Your task to perform on an android device: Empty the shopping cart on costco. Search for "dell xps" on costco, select the first entry, add it to the cart, then select checkout. Image 0: 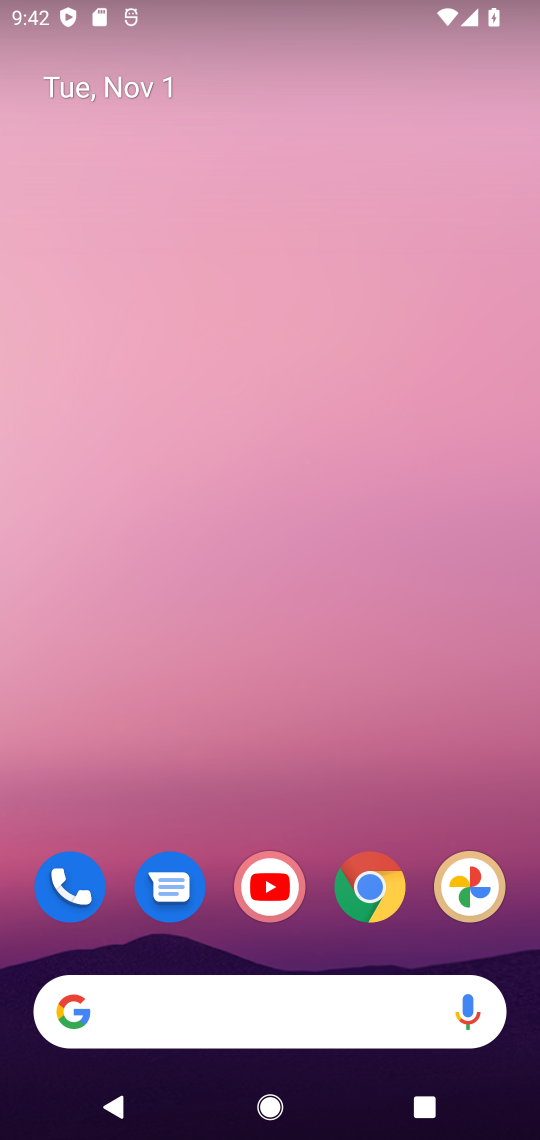
Step 0: click (367, 881)
Your task to perform on an android device: Empty the shopping cart on costco. Search for "dell xps" on costco, select the first entry, add it to the cart, then select checkout. Image 1: 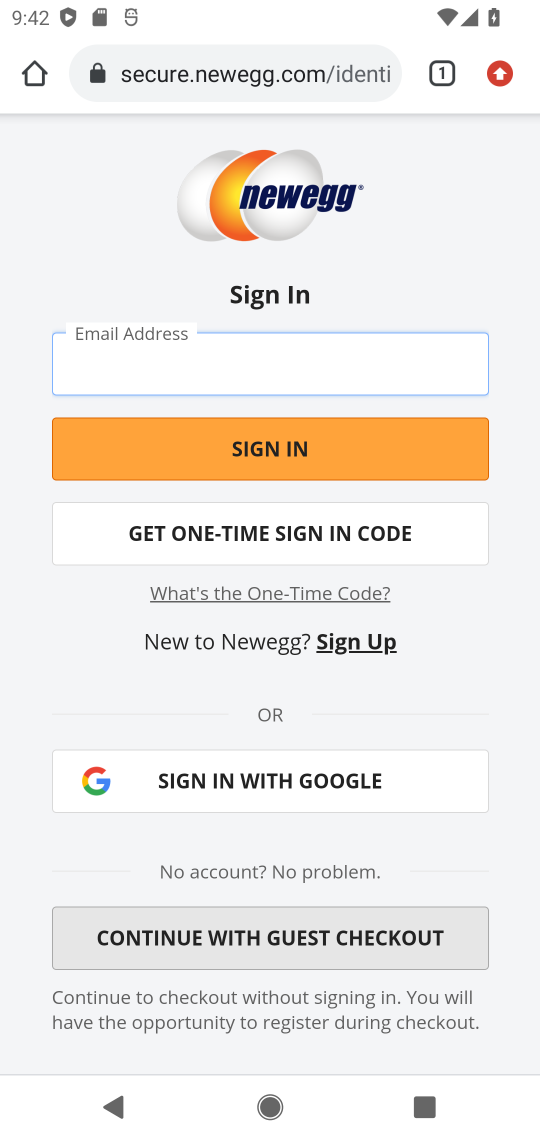
Step 1: click (316, 72)
Your task to perform on an android device: Empty the shopping cart on costco. Search for "dell xps" on costco, select the first entry, add it to the cart, then select checkout. Image 2: 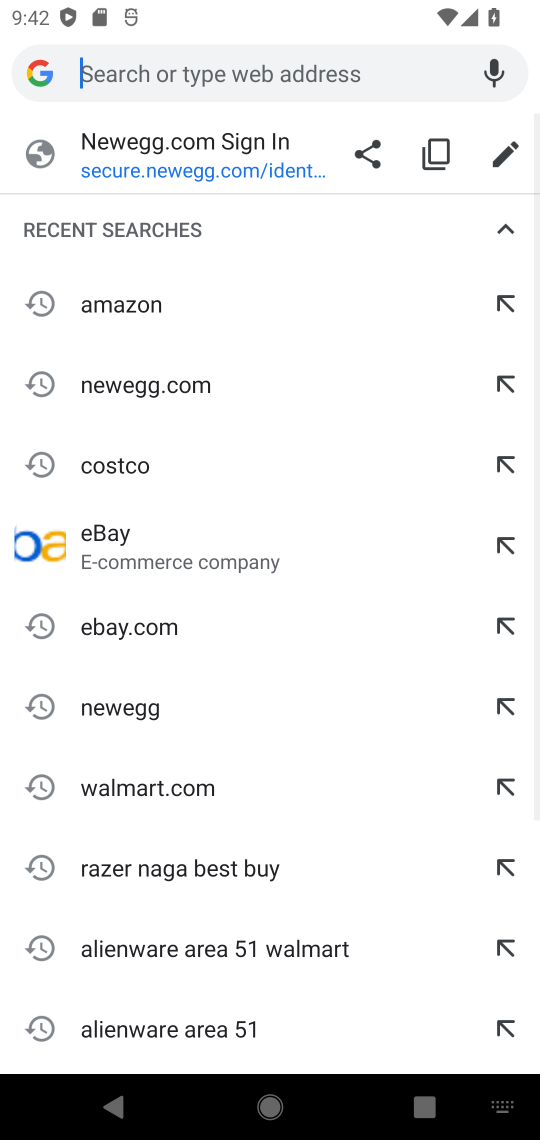
Step 2: click (136, 467)
Your task to perform on an android device: Empty the shopping cart on costco. Search for "dell xps" on costco, select the first entry, add it to the cart, then select checkout. Image 3: 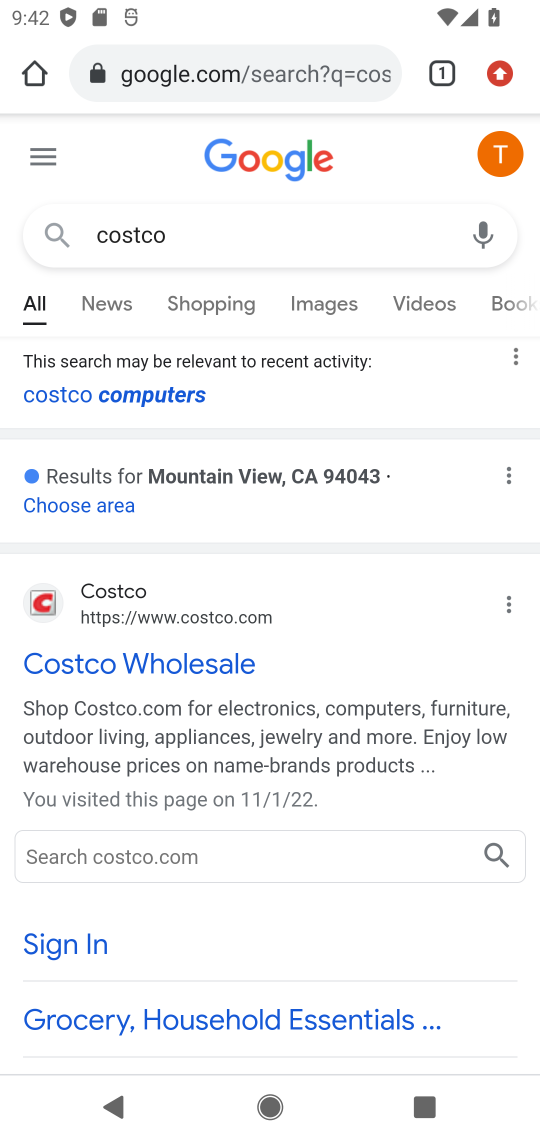
Step 3: click (125, 614)
Your task to perform on an android device: Empty the shopping cart on costco. Search for "dell xps" on costco, select the first entry, add it to the cart, then select checkout. Image 4: 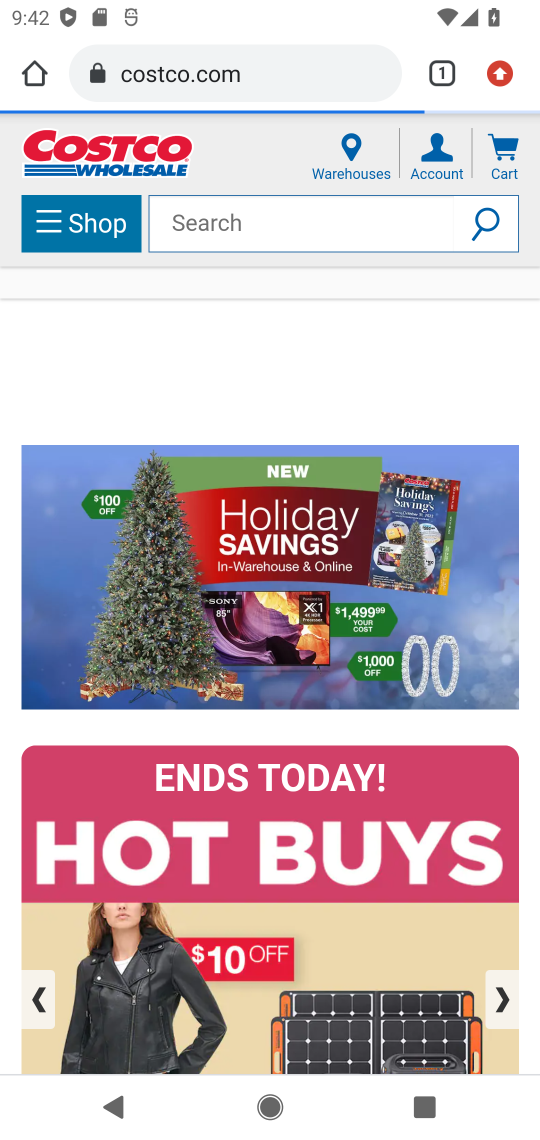
Step 4: click (500, 168)
Your task to perform on an android device: Empty the shopping cart on costco. Search for "dell xps" on costco, select the first entry, add it to the cart, then select checkout. Image 5: 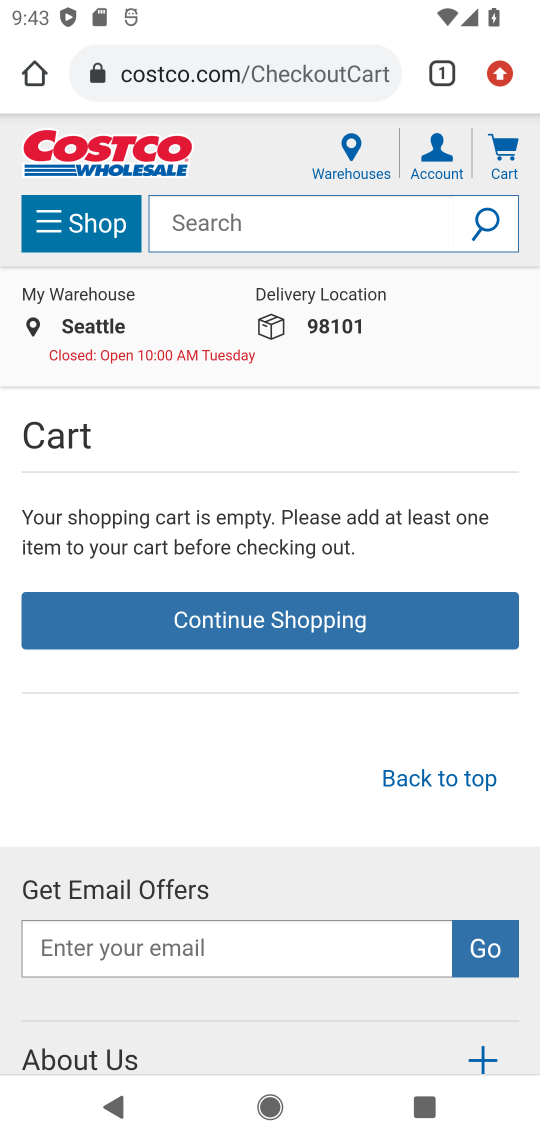
Step 5: click (369, 222)
Your task to perform on an android device: Empty the shopping cart on costco. Search for "dell xps" on costco, select the first entry, add it to the cart, then select checkout. Image 6: 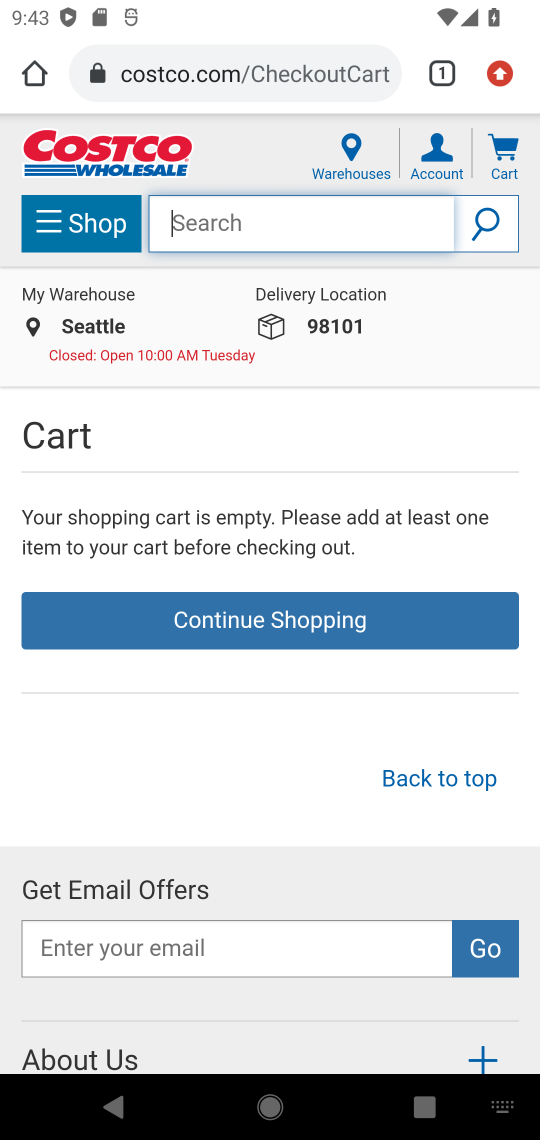
Step 6: type "dell xps"
Your task to perform on an android device: Empty the shopping cart on costco. Search for "dell xps" on costco, select the first entry, add it to the cart, then select checkout. Image 7: 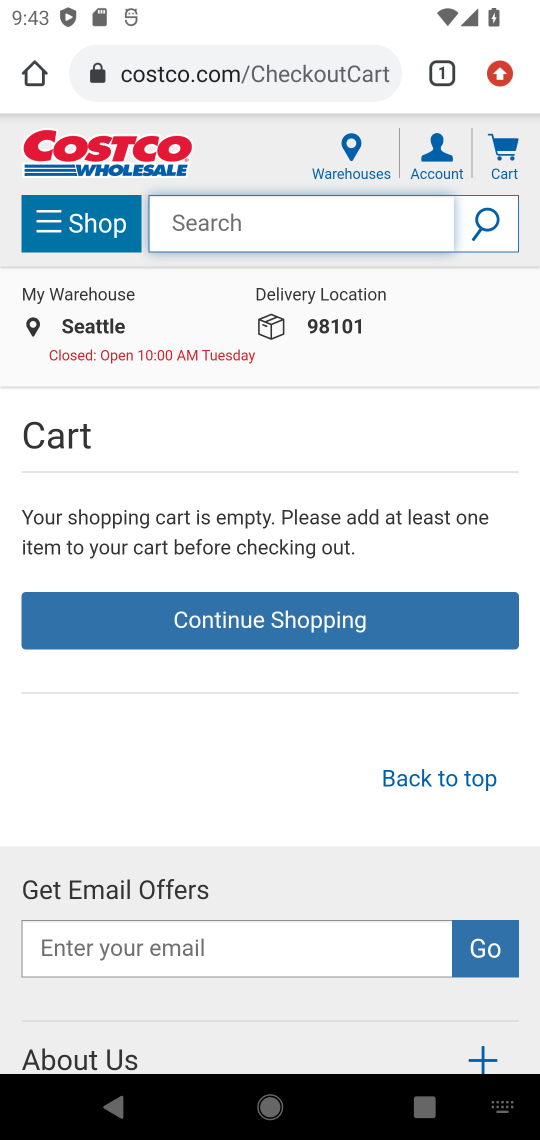
Step 7: press enter
Your task to perform on an android device: Empty the shopping cart on costco. Search for "dell xps" on costco, select the first entry, add it to the cart, then select checkout. Image 8: 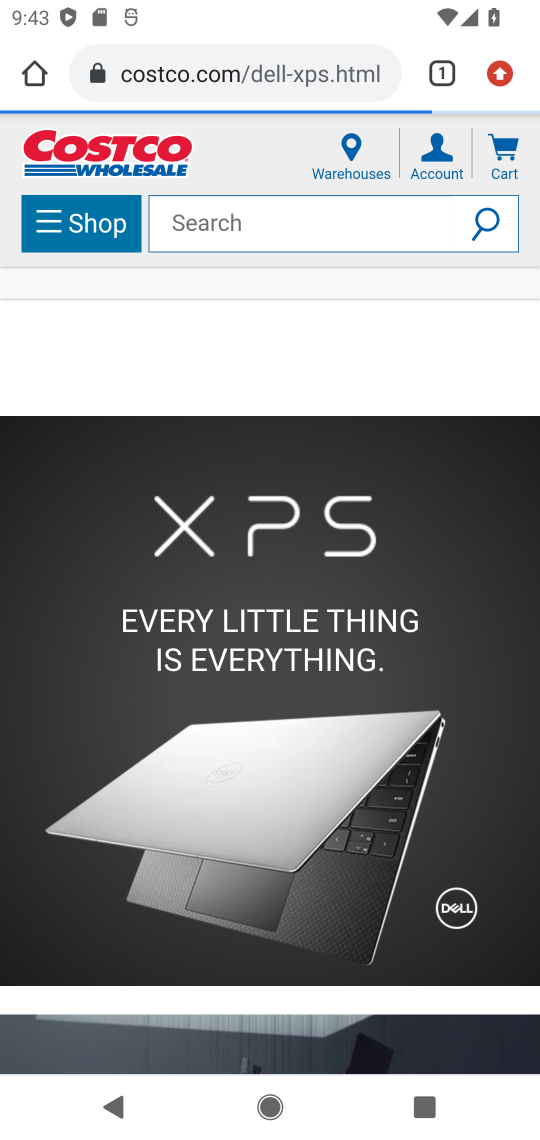
Step 8: click (290, 237)
Your task to perform on an android device: Empty the shopping cart on costco. Search for "dell xps" on costco, select the first entry, add it to the cart, then select checkout. Image 9: 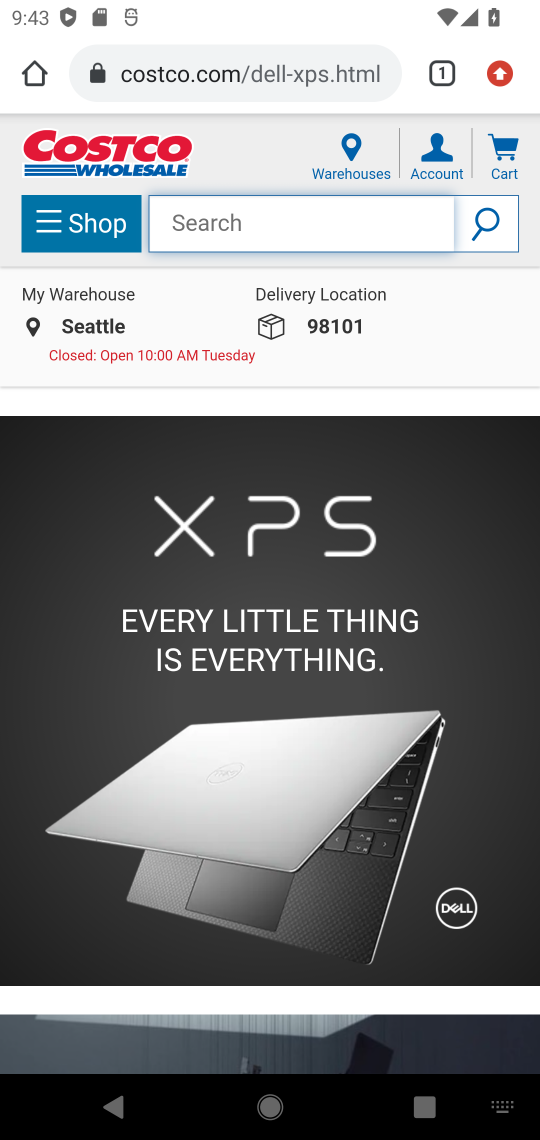
Step 9: type "dell xps"
Your task to perform on an android device: Empty the shopping cart on costco. Search for "dell xps" on costco, select the first entry, add it to the cart, then select checkout. Image 10: 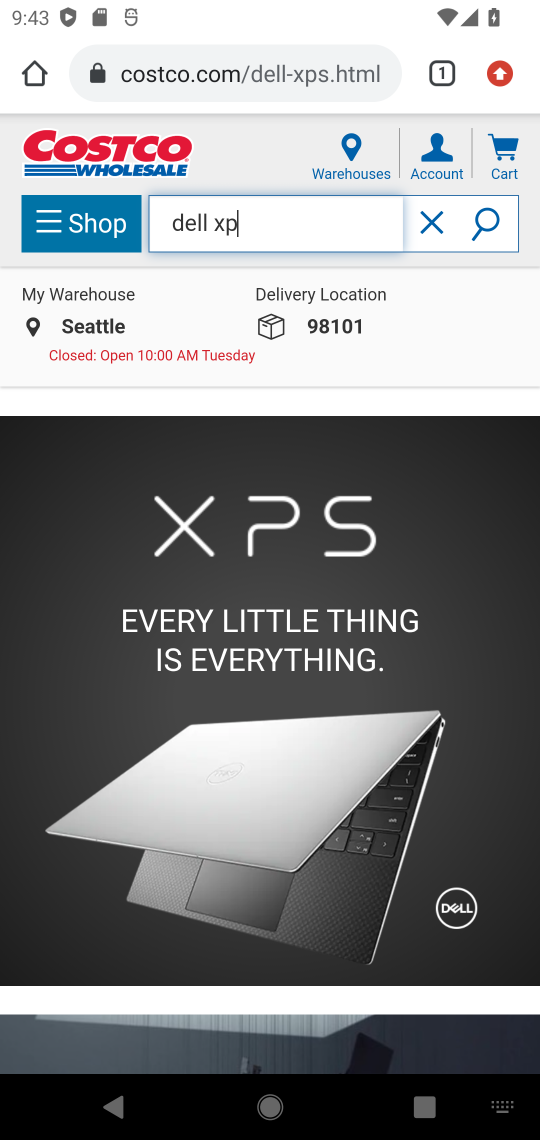
Step 10: press enter
Your task to perform on an android device: Empty the shopping cart on costco. Search for "dell xps" on costco, select the first entry, add it to the cart, then select checkout. Image 11: 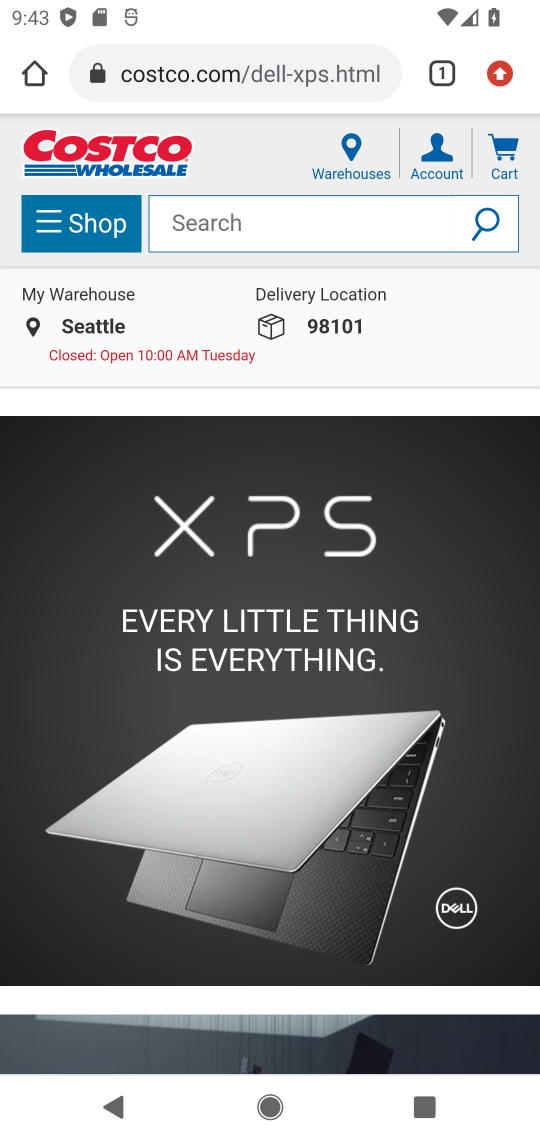
Step 11: click (269, 202)
Your task to perform on an android device: Empty the shopping cart on costco. Search for "dell xps" on costco, select the first entry, add it to the cart, then select checkout. Image 12: 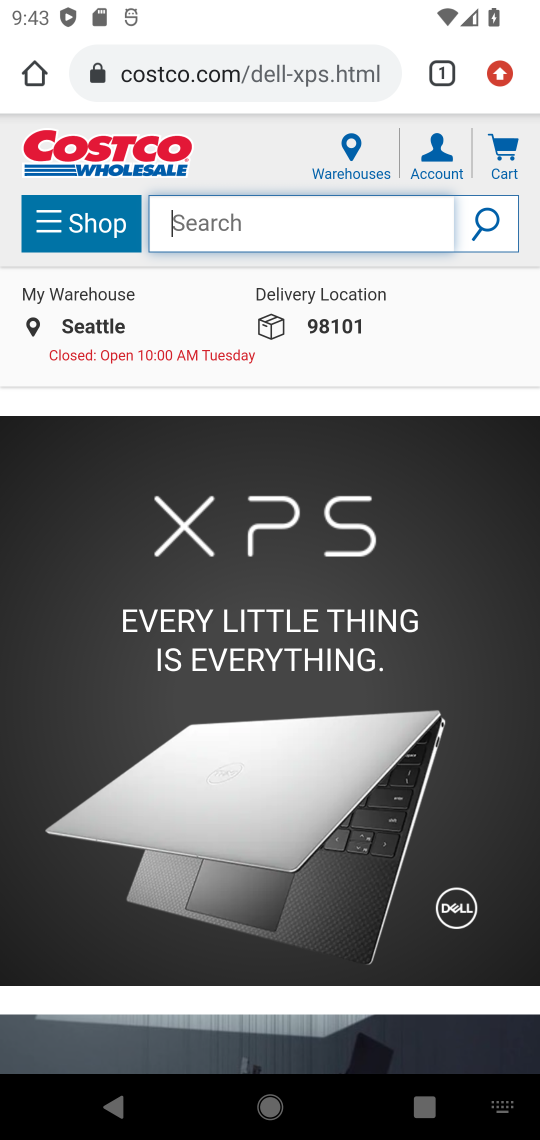
Step 12: type "dell xps"
Your task to perform on an android device: Empty the shopping cart on costco. Search for "dell xps" on costco, select the first entry, add it to the cart, then select checkout. Image 13: 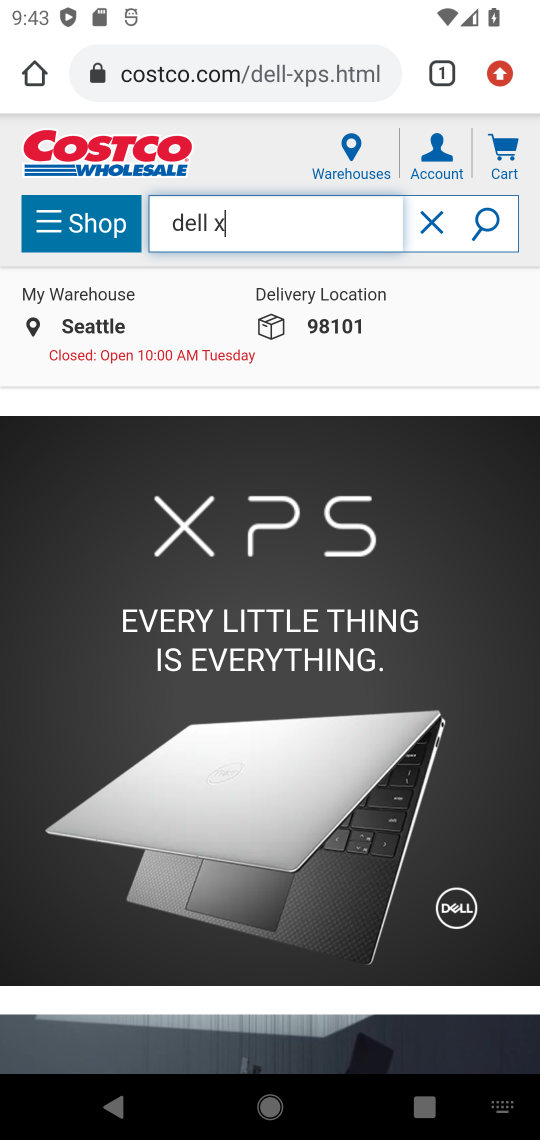
Step 13: press enter
Your task to perform on an android device: Empty the shopping cart on costco. Search for "dell xps" on costco, select the first entry, add it to the cart, then select checkout. Image 14: 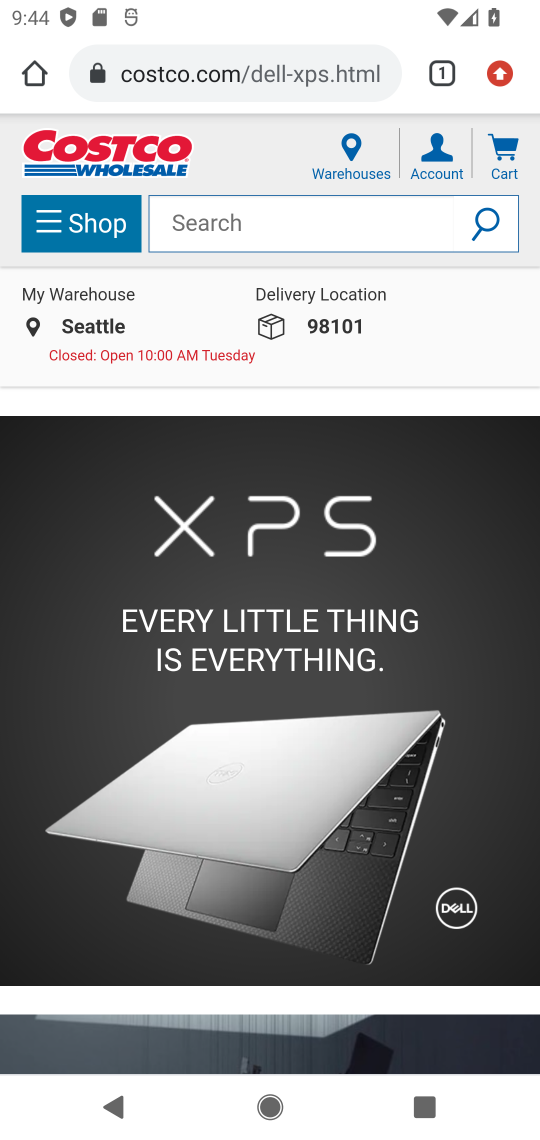
Step 14: drag from (375, 702) to (414, 67)
Your task to perform on an android device: Empty the shopping cart on costco. Search for "dell xps" on costco, select the first entry, add it to the cart, then select checkout. Image 15: 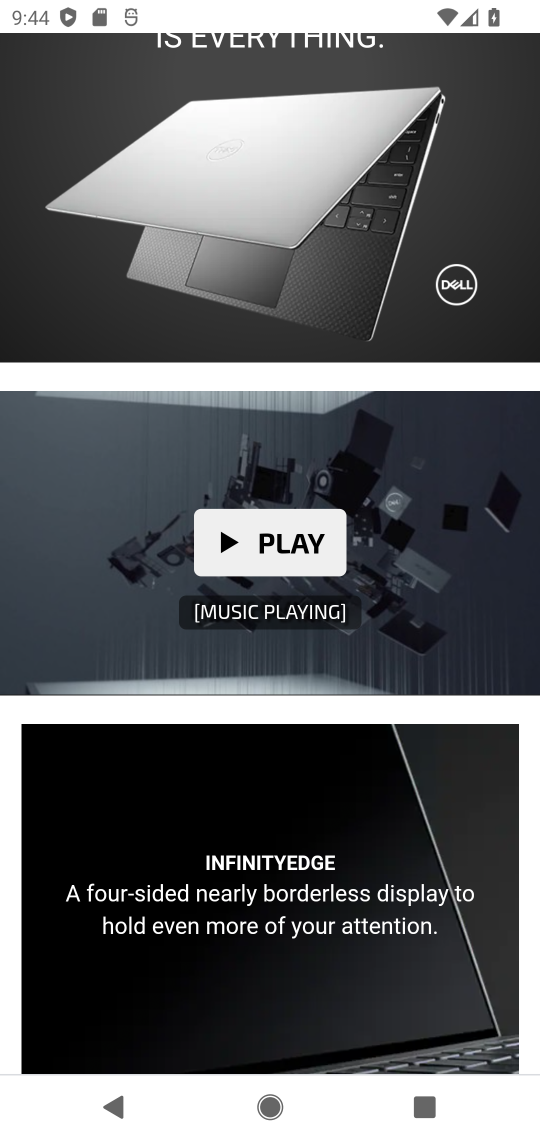
Step 15: drag from (395, 864) to (475, 108)
Your task to perform on an android device: Empty the shopping cart on costco. Search for "dell xps" on costco, select the first entry, add it to the cart, then select checkout. Image 16: 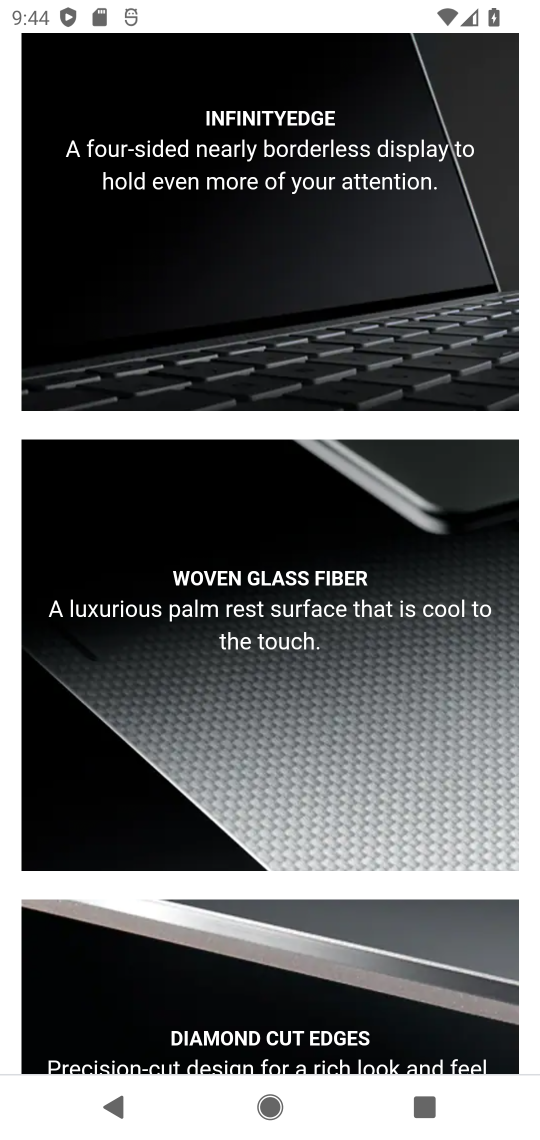
Step 16: drag from (373, 769) to (464, 43)
Your task to perform on an android device: Empty the shopping cart on costco. Search for "dell xps" on costco, select the first entry, add it to the cart, then select checkout. Image 17: 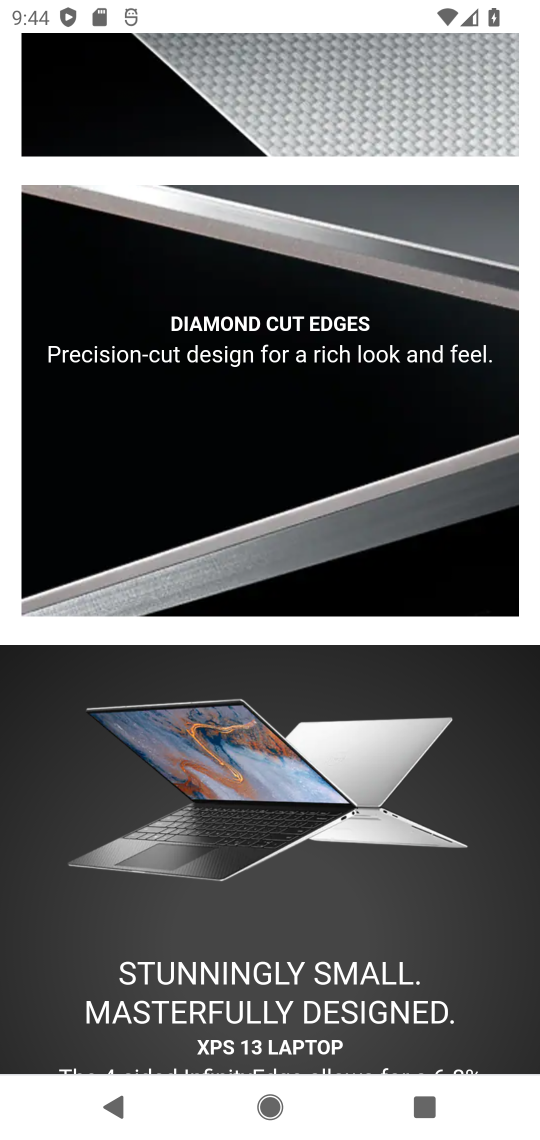
Step 17: drag from (339, 808) to (458, 99)
Your task to perform on an android device: Empty the shopping cart on costco. Search for "dell xps" on costco, select the first entry, add it to the cart, then select checkout. Image 18: 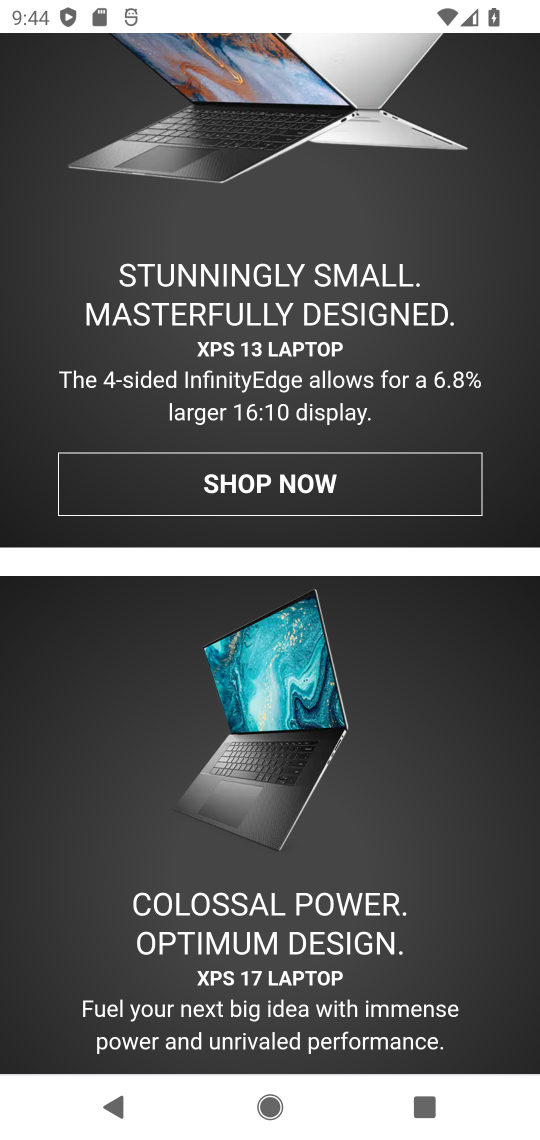
Step 18: drag from (369, 786) to (450, 146)
Your task to perform on an android device: Empty the shopping cart on costco. Search for "dell xps" on costco, select the first entry, add it to the cart, then select checkout. Image 19: 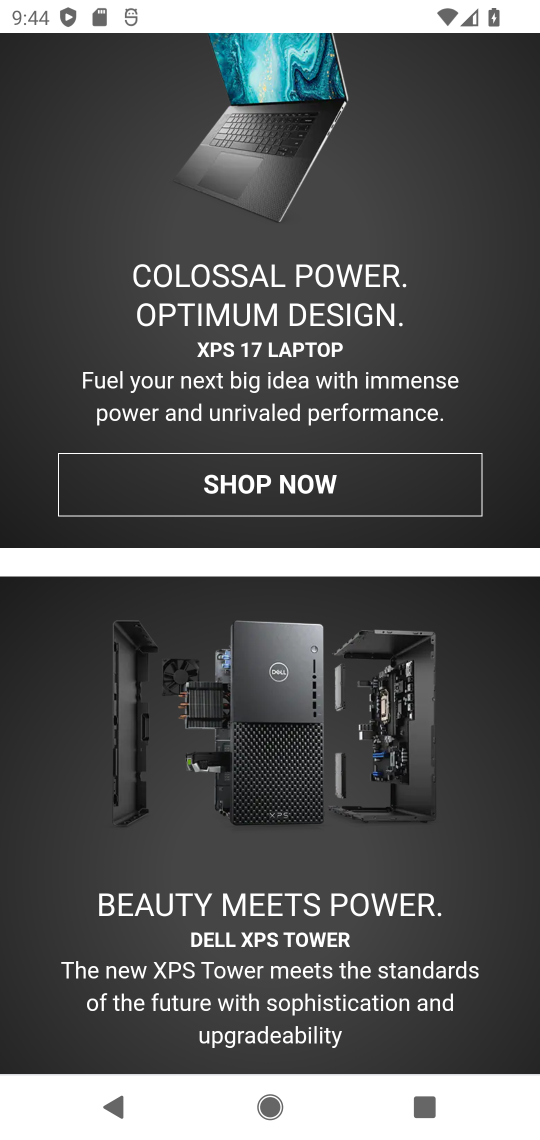
Step 19: click (334, 489)
Your task to perform on an android device: Empty the shopping cart on costco. Search for "dell xps" on costco, select the first entry, add it to the cart, then select checkout. Image 20: 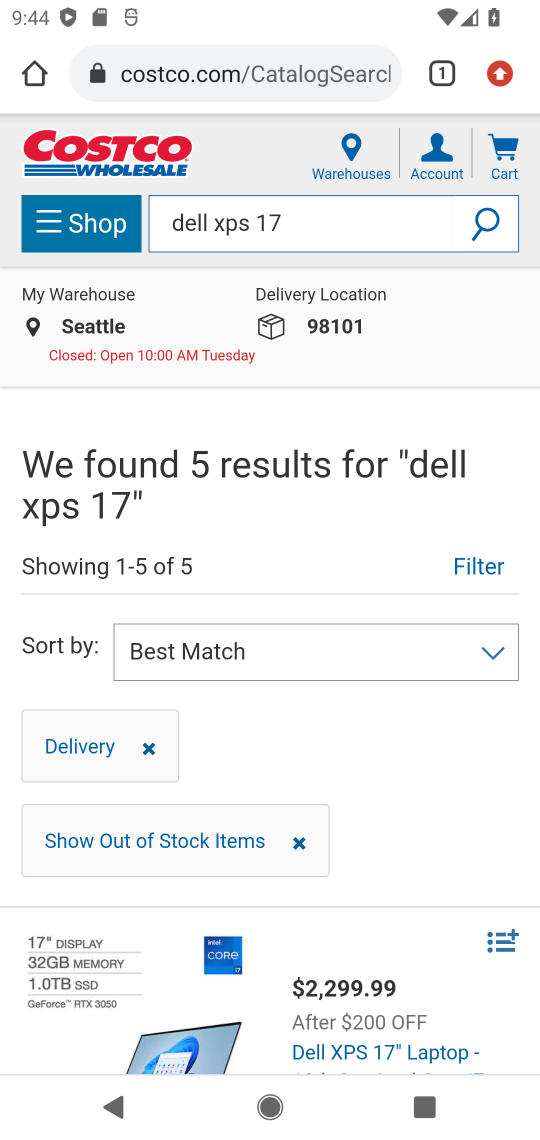
Step 20: drag from (395, 792) to (400, 523)
Your task to perform on an android device: Empty the shopping cart on costco. Search for "dell xps" on costco, select the first entry, add it to the cart, then select checkout. Image 21: 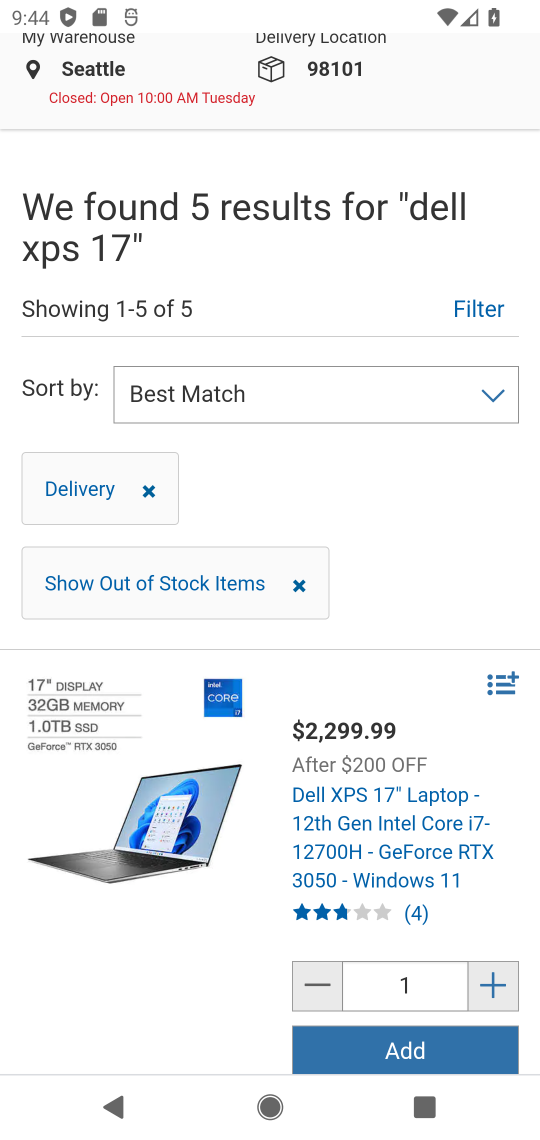
Step 21: click (161, 824)
Your task to perform on an android device: Empty the shopping cart on costco. Search for "dell xps" on costco, select the first entry, add it to the cart, then select checkout. Image 22: 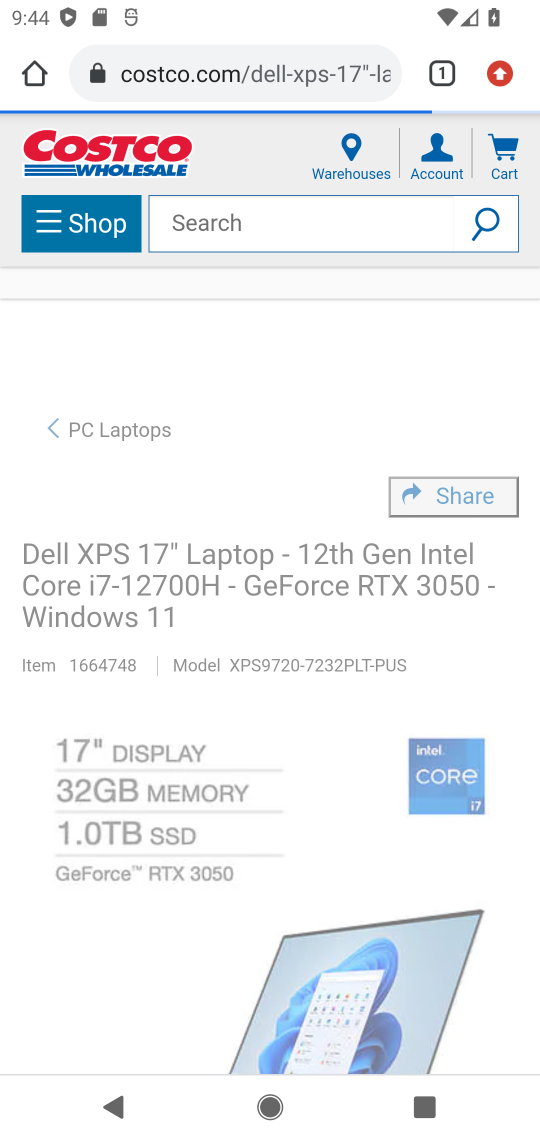
Step 22: drag from (346, 827) to (393, 387)
Your task to perform on an android device: Empty the shopping cart on costco. Search for "dell xps" on costco, select the first entry, add it to the cart, then select checkout. Image 23: 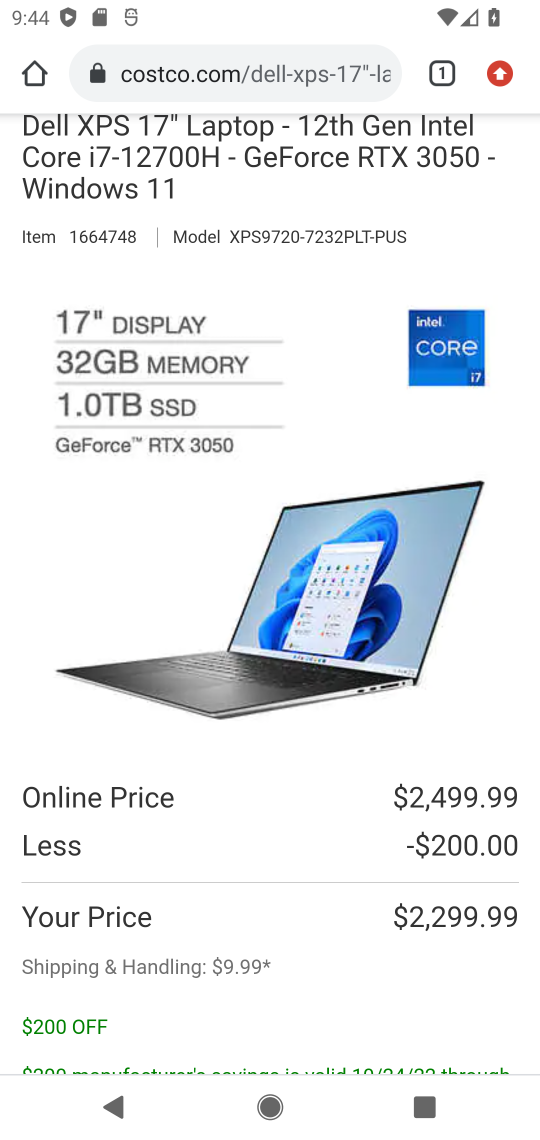
Step 23: drag from (376, 819) to (384, 410)
Your task to perform on an android device: Empty the shopping cart on costco. Search for "dell xps" on costco, select the first entry, add it to the cart, then select checkout. Image 24: 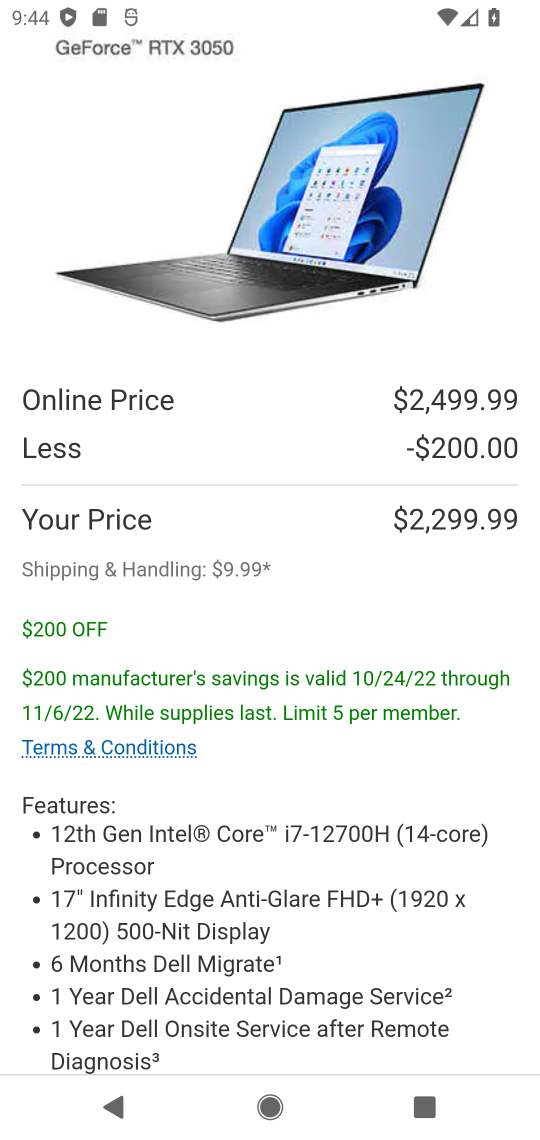
Step 24: drag from (317, 913) to (319, 408)
Your task to perform on an android device: Empty the shopping cart on costco. Search for "dell xps" on costco, select the first entry, add it to the cart, then select checkout. Image 25: 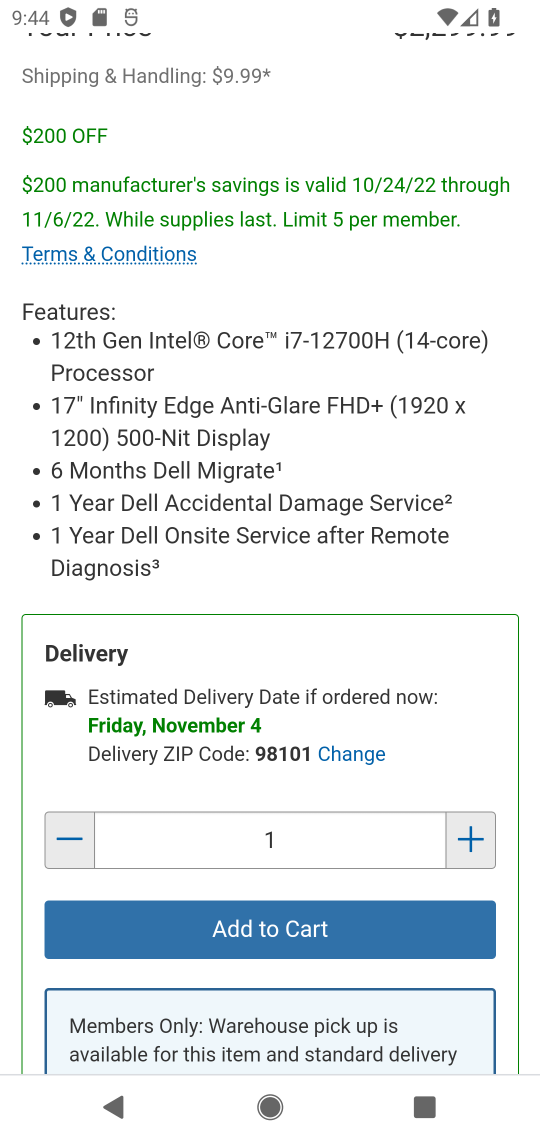
Step 25: click (323, 925)
Your task to perform on an android device: Empty the shopping cart on costco. Search for "dell xps" on costco, select the first entry, add it to the cart, then select checkout. Image 26: 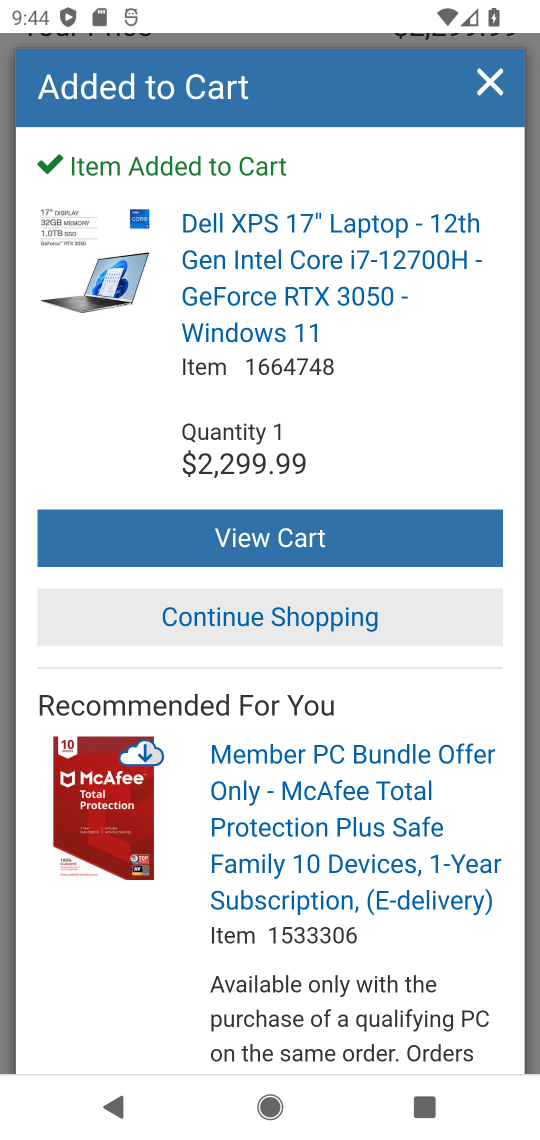
Step 26: click (486, 70)
Your task to perform on an android device: Empty the shopping cart on costco. Search for "dell xps" on costco, select the first entry, add it to the cart, then select checkout. Image 27: 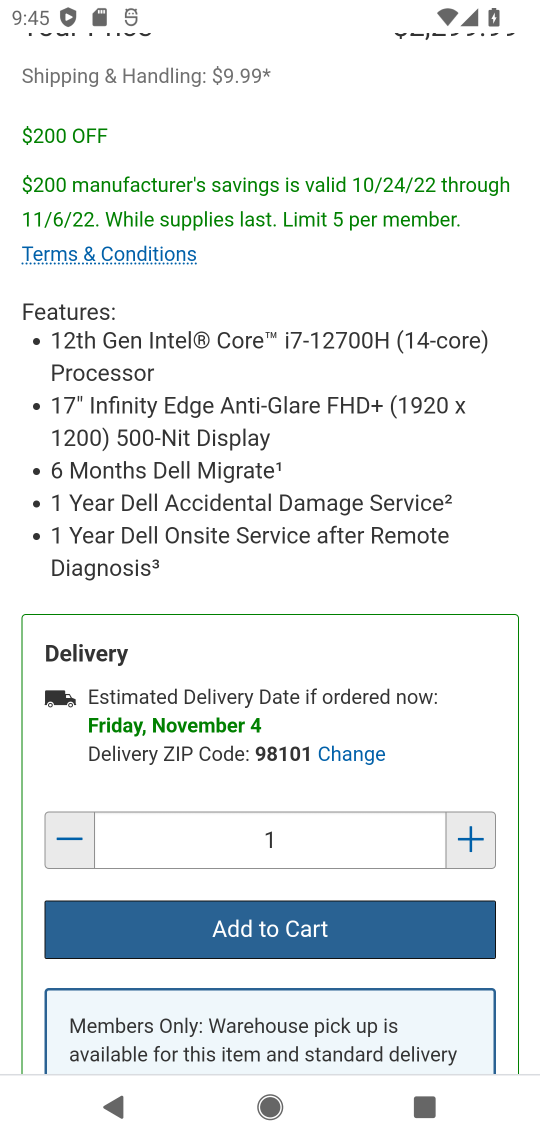
Step 27: drag from (463, 123) to (489, 589)
Your task to perform on an android device: Empty the shopping cart on costco. Search for "dell xps" on costco, select the first entry, add it to the cart, then select checkout. Image 28: 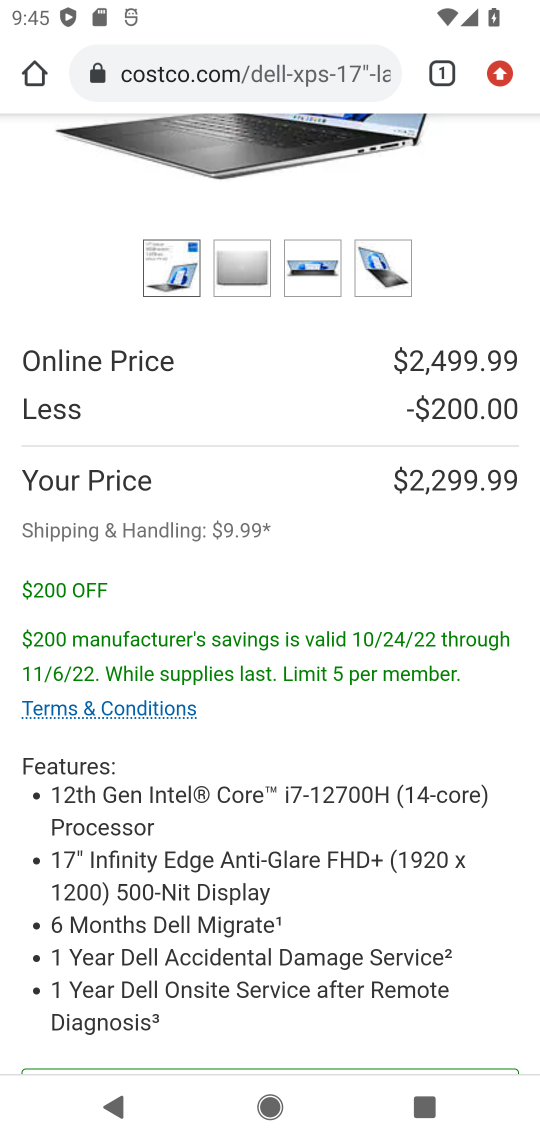
Step 28: drag from (418, 182) to (447, 811)
Your task to perform on an android device: Empty the shopping cart on costco. Search for "dell xps" on costco, select the first entry, add it to the cart, then select checkout. Image 29: 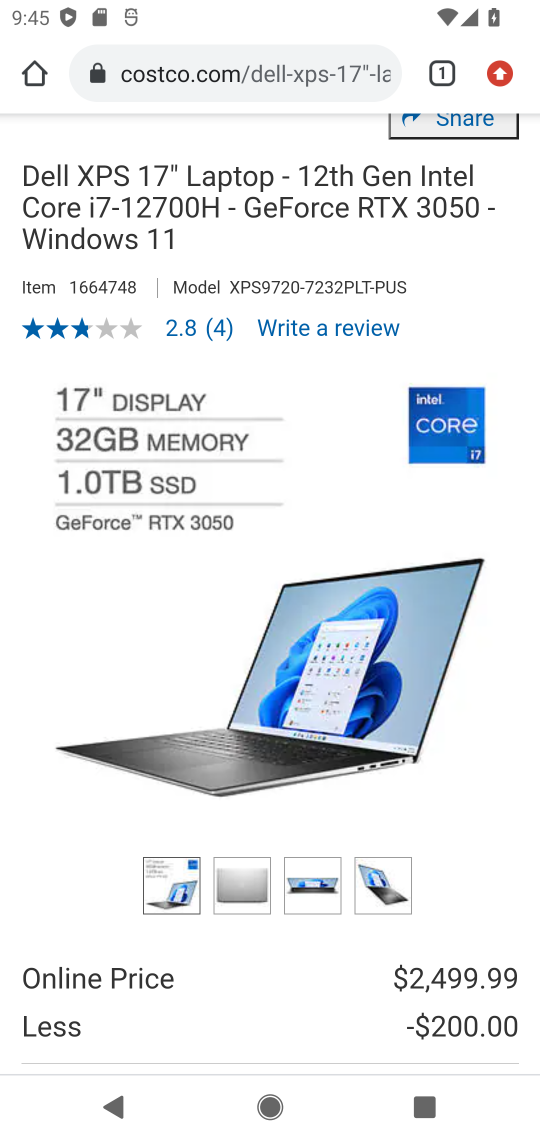
Step 29: drag from (275, 163) to (277, 637)
Your task to perform on an android device: Empty the shopping cart on costco. Search for "dell xps" on costco, select the first entry, add it to the cart, then select checkout. Image 30: 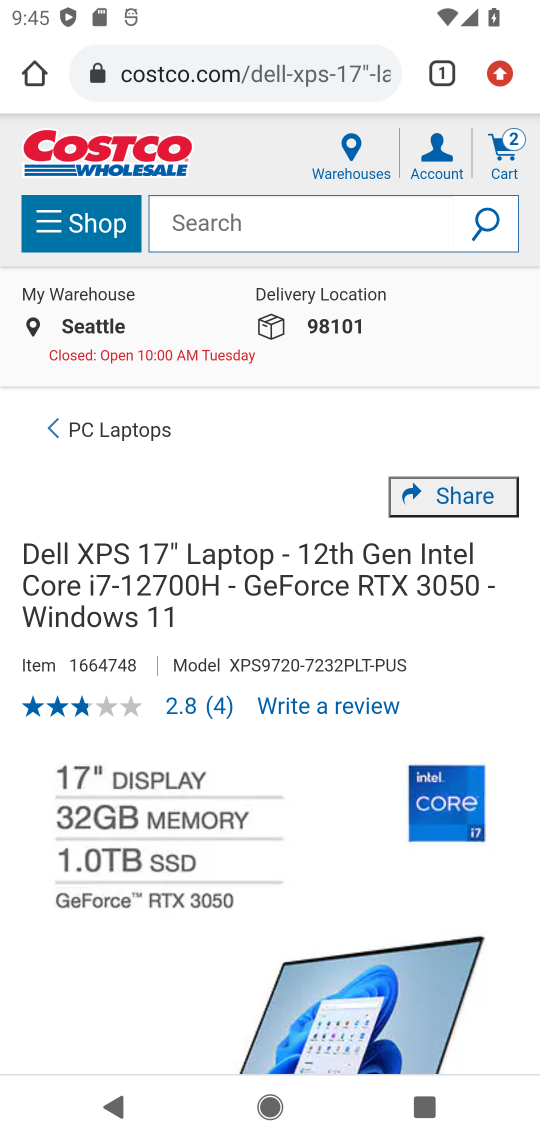
Step 30: click (496, 148)
Your task to perform on an android device: Empty the shopping cart on costco. Search for "dell xps" on costco, select the first entry, add it to the cart, then select checkout. Image 31: 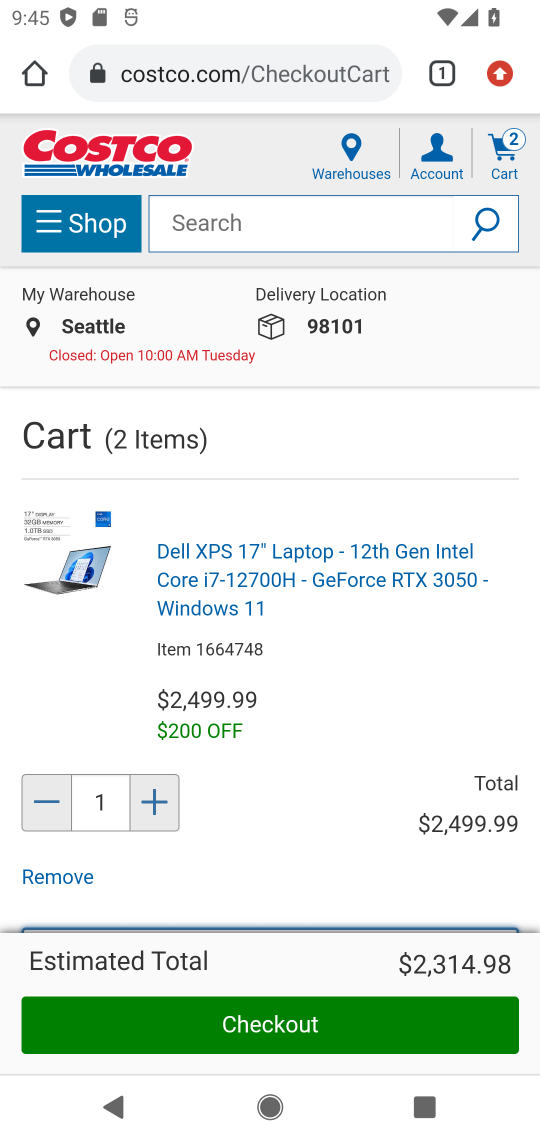
Step 31: click (330, 1029)
Your task to perform on an android device: Empty the shopping cart on costco. Search for "dell xps" on costco, select the first entry, add it to the cart, then select checkout. Image 32: 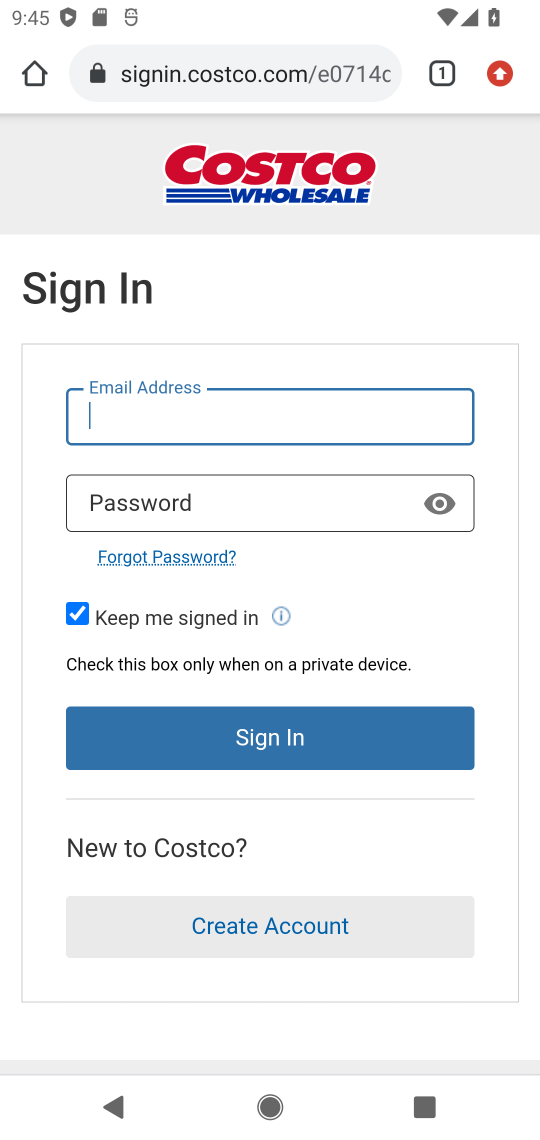
Step 32: task complete